Your task to perform on an android device: Open Yahoo.com Image 0: 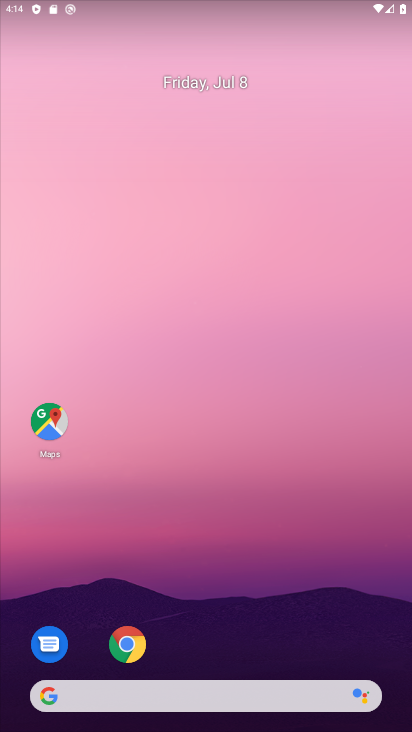
Step 0: click (130, 624)
Your task to perform on an android device: Open Yahoo.com Image 1: 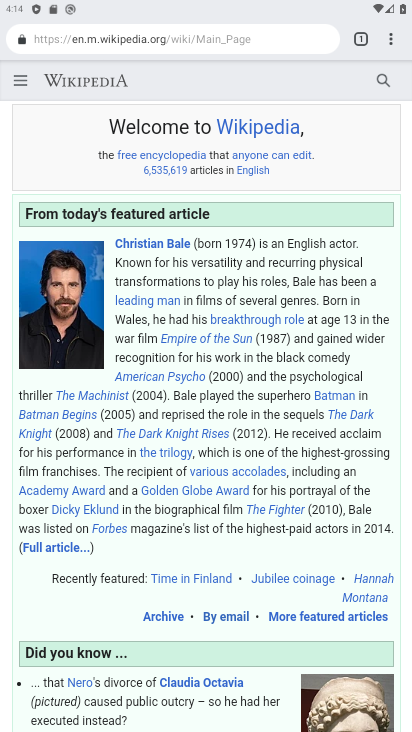
Step 1: click (358, 34)
Your task to perform on an android device: Open Yahoo.com Image 2: 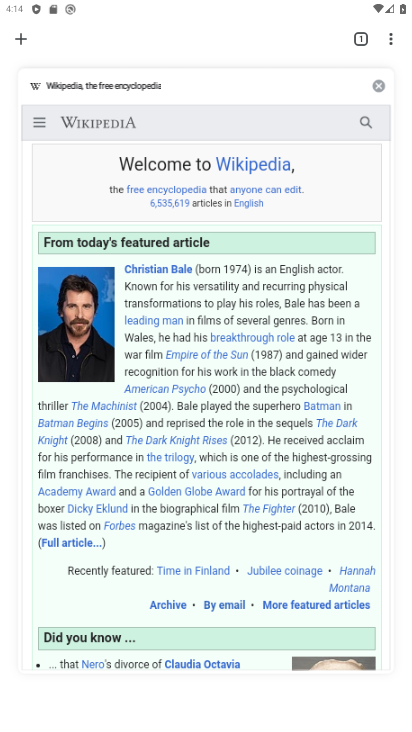
Step 2: click (23, 35)
Your task to perform on an android device: Open Yahoo.com Image 3: 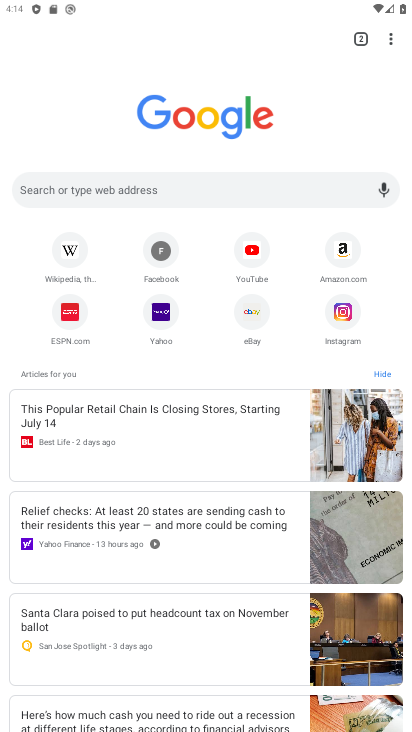
Step 3: click (158, 313)
Your task to perform on an android device: Open Yahoo.com Image 4: 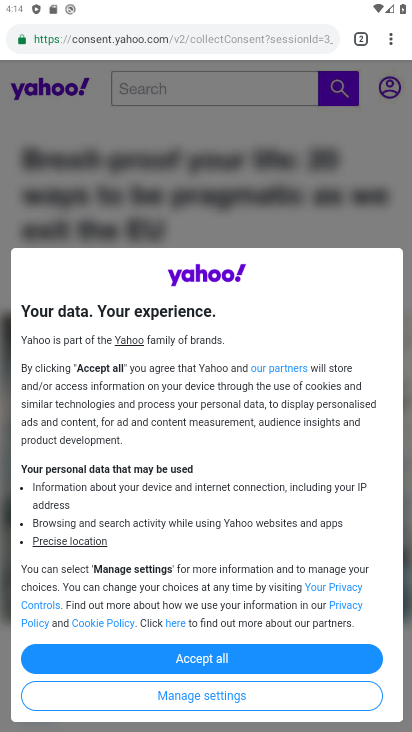
Step 4: task complete